Your task to perform on an android device: uninstall "DoorDash - Dasher" Image 0: 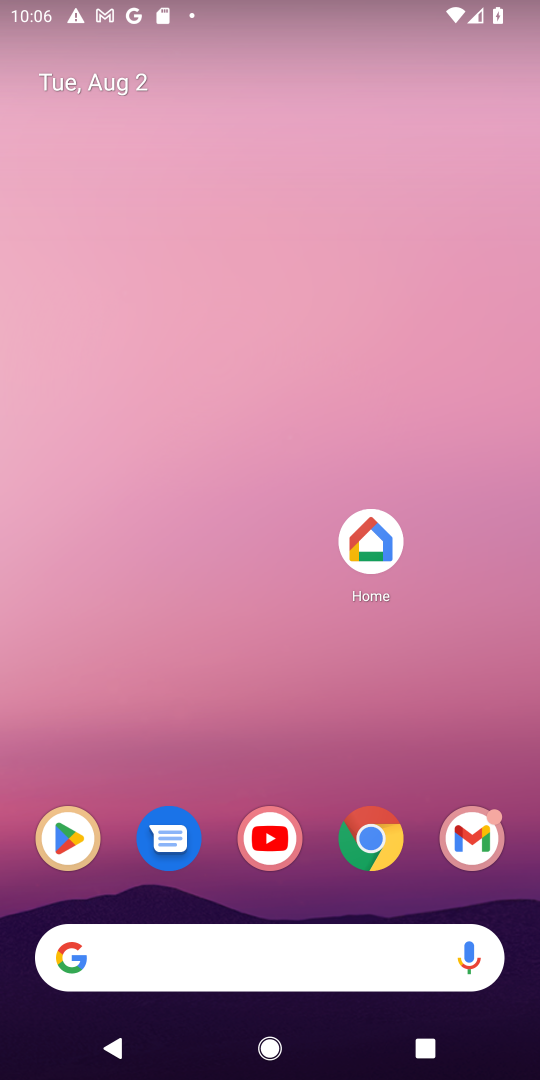
Step 0: press home button
Your task to perform on an android device: uninstall "DoorDash - Dasher" Image 1: 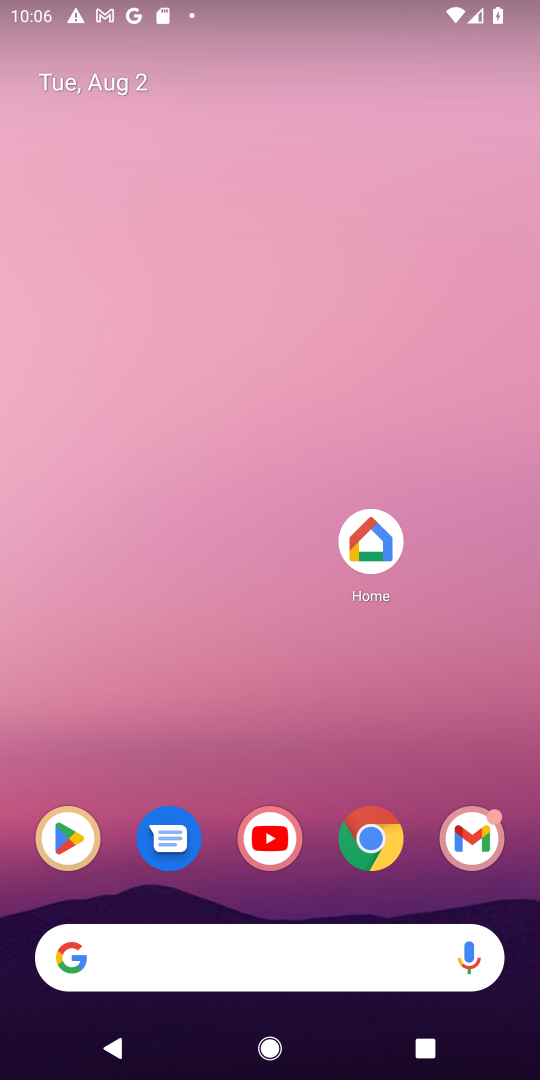
Step 1: drag from (222, 783) to (245, 192)
Your task to perform on an android device: uninstall "DoorDash - Dasher" Image 2: 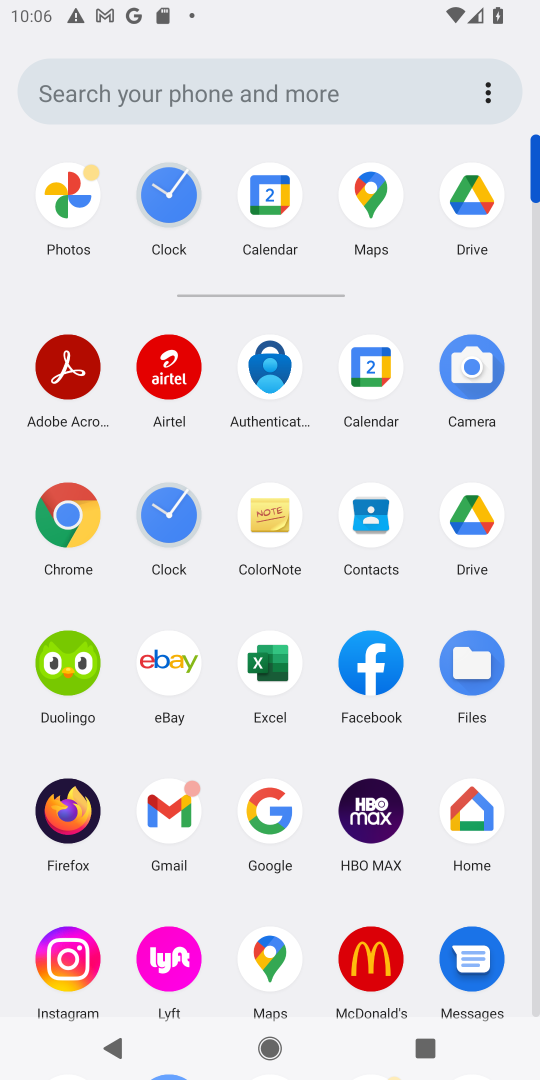
Step 2: drag from (211, 894) to (219, 566)
Your task to perform on an android device: uninstall "DoorDash - Dasher" Image 3: 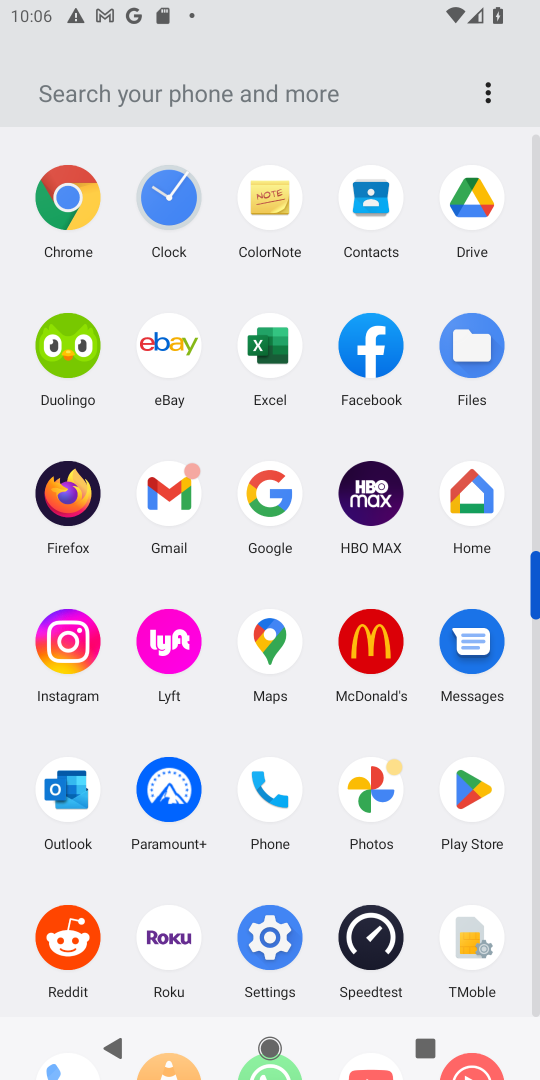
Step 3: click (467, 791)
Your task to perform on an android device: uninstall "DoorDash - Dasher" Image 4: 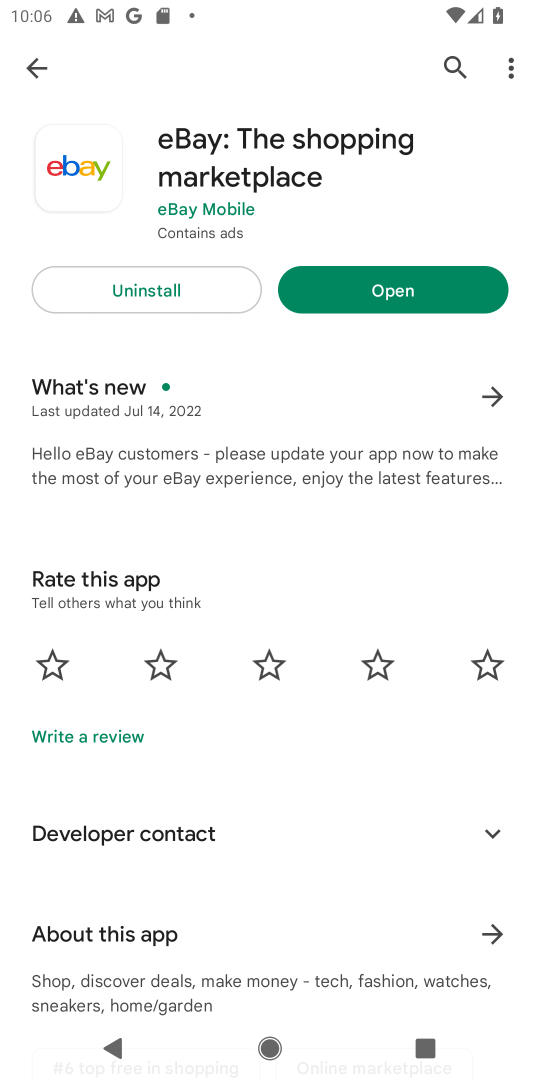
Step 4: click (450, 61)
Your task to perform on an android device: uninstall "DoorDash - Dasher" Image 5: 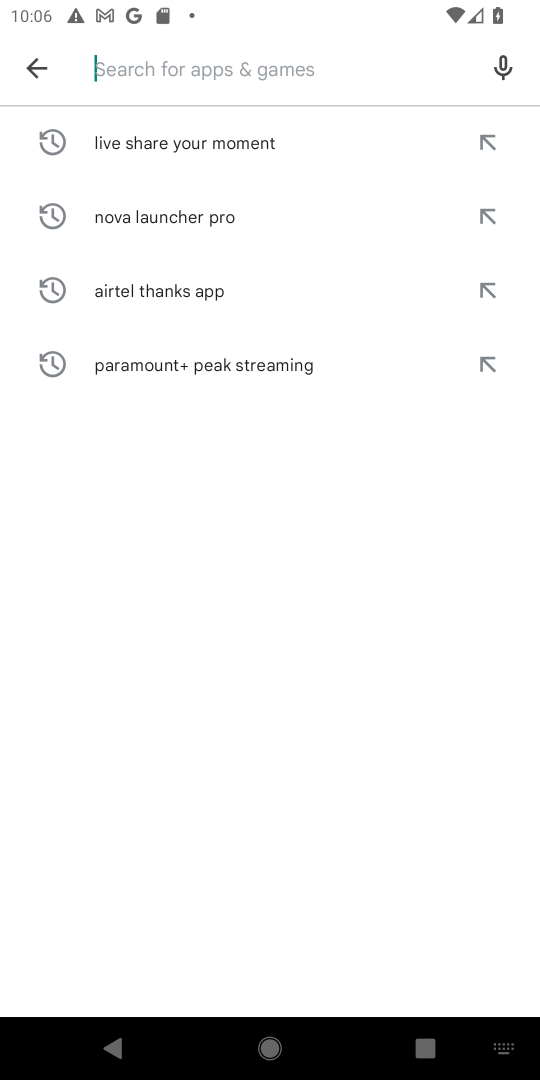
Step 5: click (340, 81)
Your task to perform on an android device: uninstall "DoorDash - Dasher" Image 6: 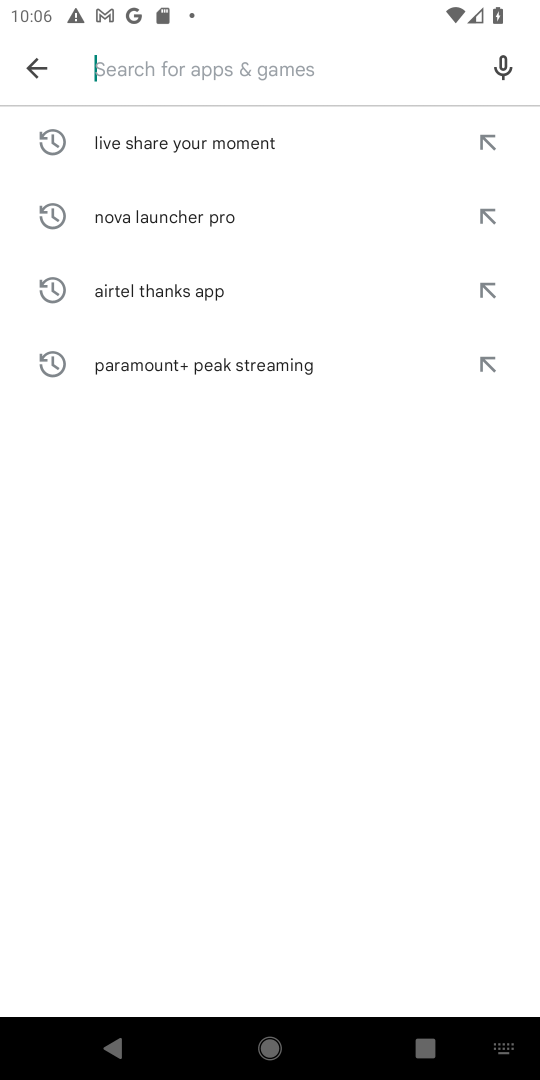
Step 6: type "doordash dashar"
Your task to perform on an android device: uninstall "DoorDash - Dasher" Image 7: 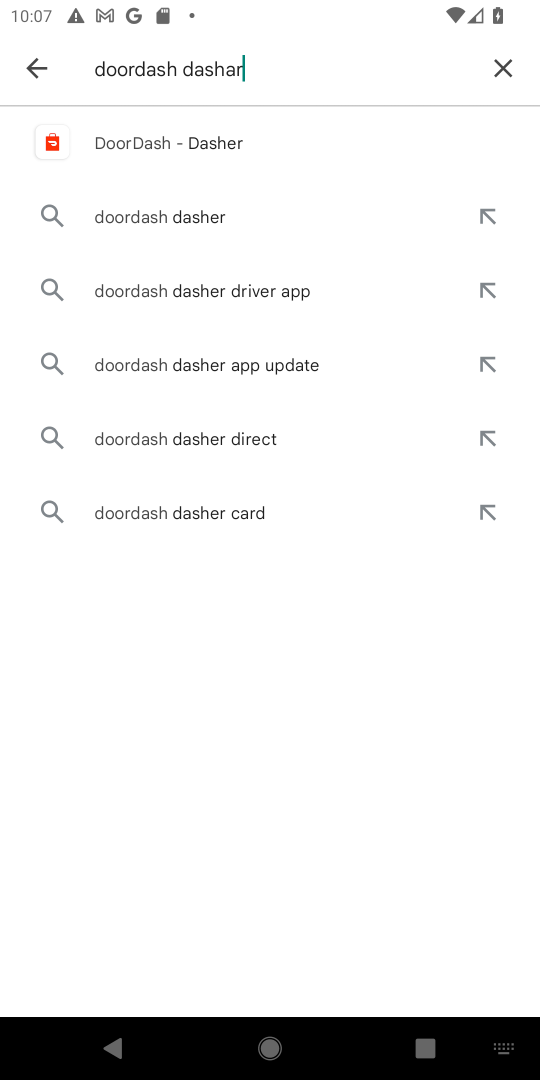
Step 7: click (266, 140)
Your task to perform on an android device: uninstall "DoorDash - Dasher" Image 8: 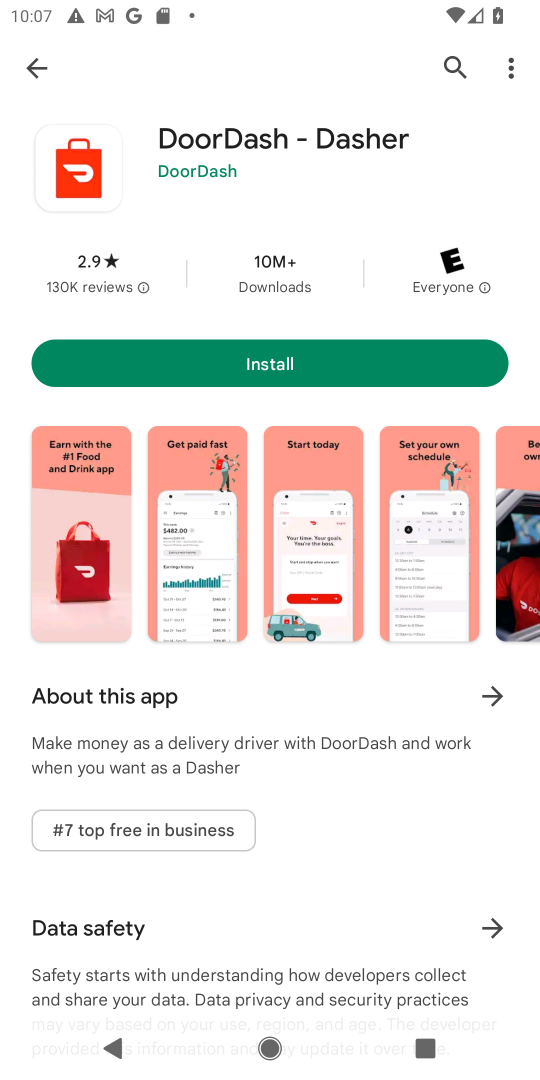
Step 8: task complete